Your task to perform on an android device: Go to Google Image 0: 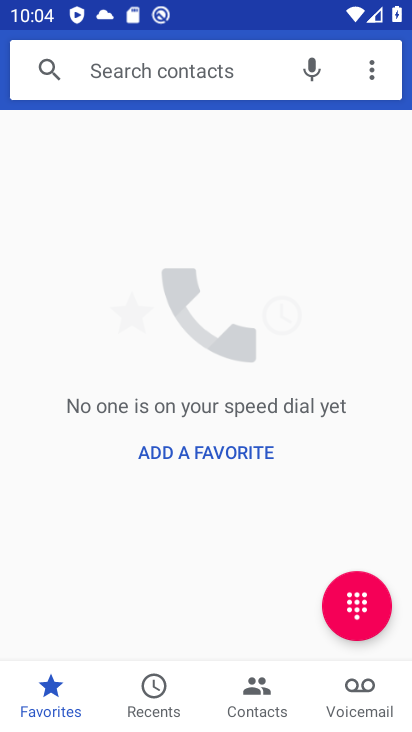
Step 0: press home button
Your task to perform on an android device: Go to Google Image 1: 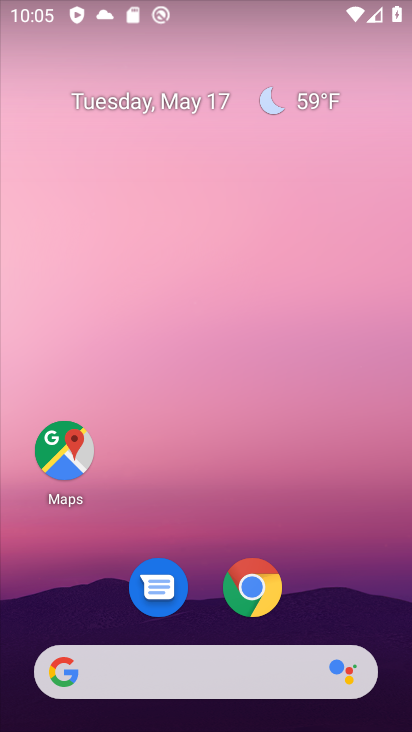
Step 1: drag from (341, 614) to (348, 358)
Your task to perform on an android device: Go to Google Image 2: 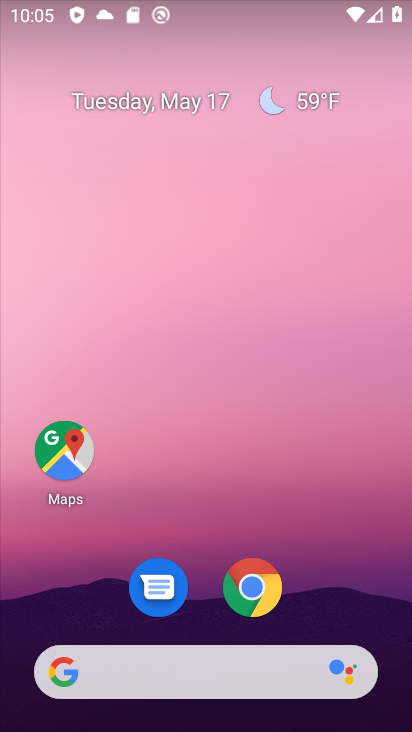
Step 2: drag from (318, 605) to (263, 316)
Your task to perform on an android device: Go to Google Image 3: 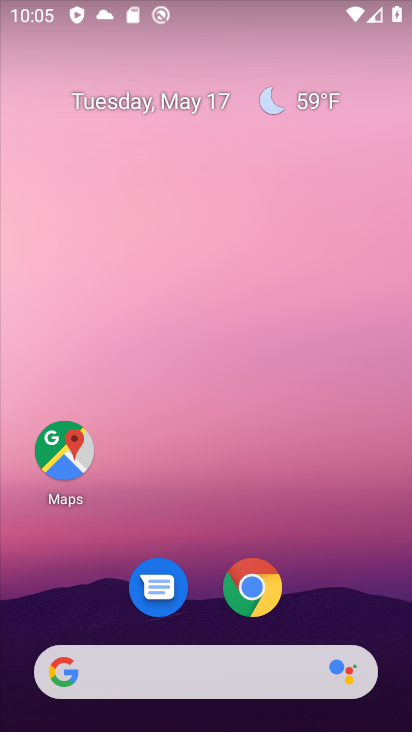
Step 3: drag from (319, 609) to (230, 262)
Your task to perform on an android device: Go to Google Image 4: 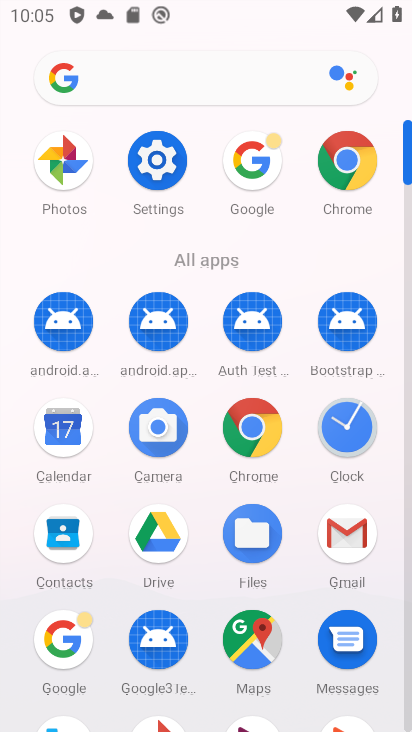
Step 4: click (263, 161)
Your task to perform on an android device: Go to Google Image 5: 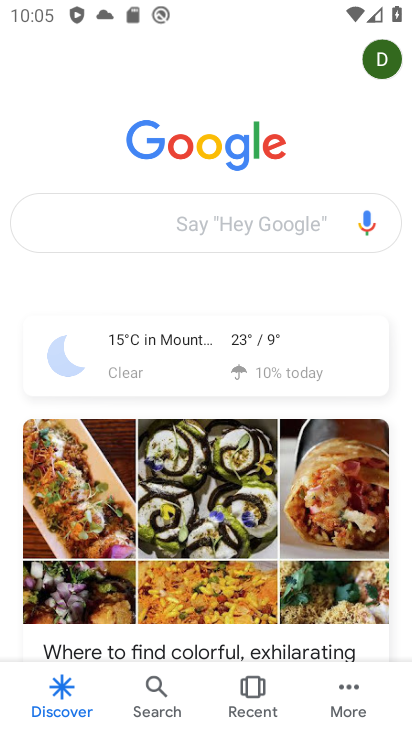
Step 5: task complete